Your task to perform on an android device: What's on my calendar today? Image 0: 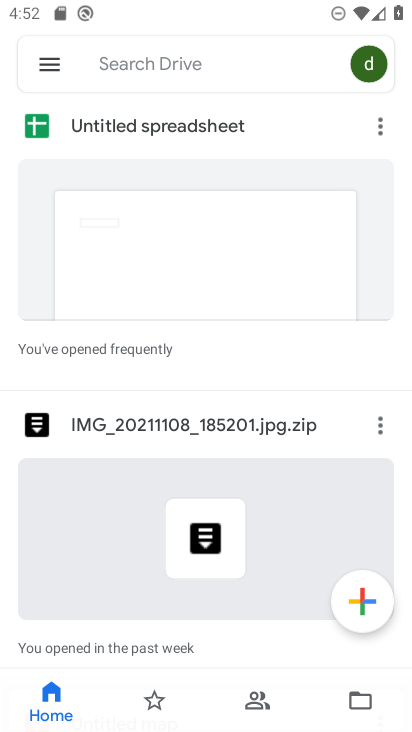
Step 0: press home button
Your task to perform on an android device: What's on my calendar today? Image 1: 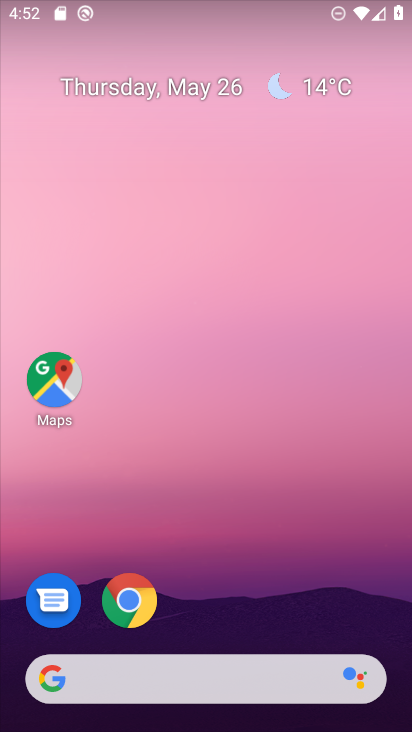
Step 1: click (183, 90)
Your task to perform on an android device: What's on my calendar today? Image 2: 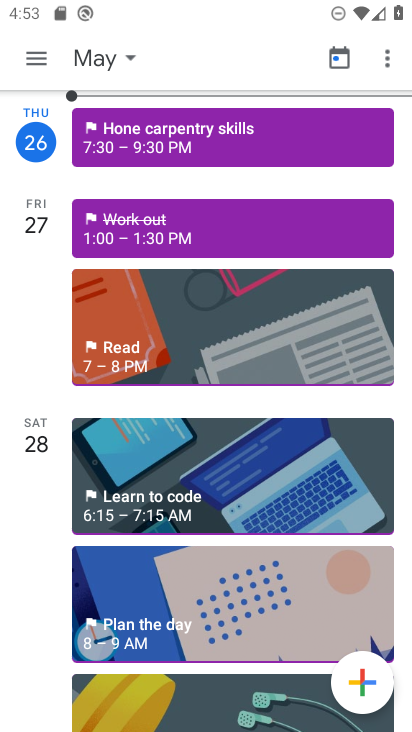
Step 2: task complete